Your task to perform on an android device: Open ESPN.com Image 0: 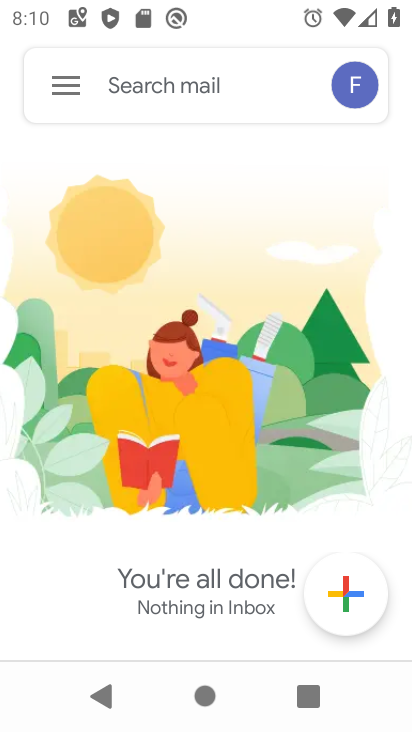
Step 0: drag from (208, 568) to (250, 174)
Your task to perform on an android device: Open ESPN.com Image 1: 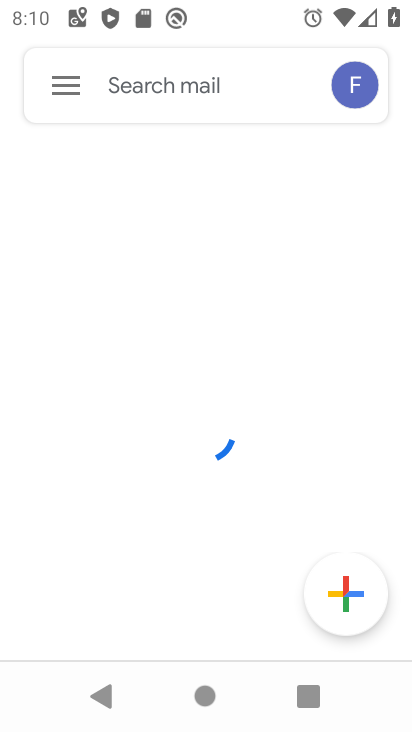
Step 1: press back button
Your task to perform on an android device: Open ESPN.com Image 2: 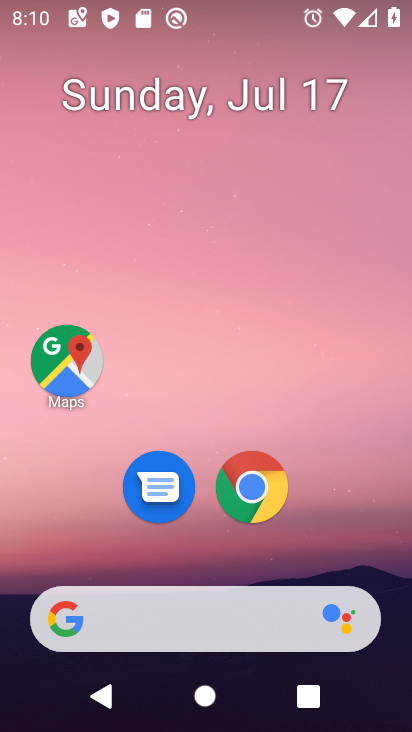
Step 2: click (266, 483)
Your task to perform on an android device: Open ESPN.com Image 3: 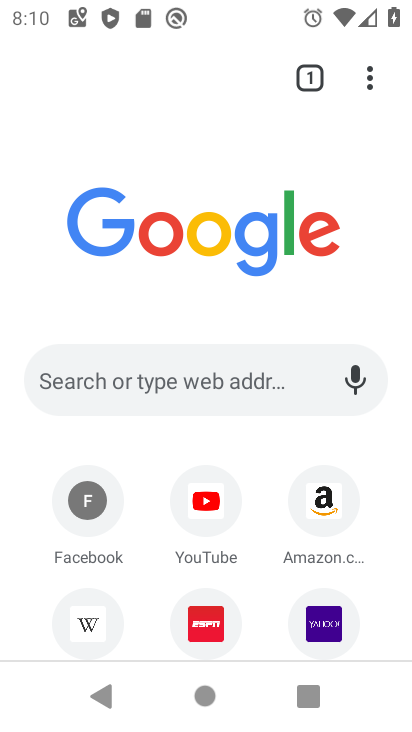
Step 3: click (206, 625)
Your task to perform on an android device: Open ESPN.com Image 4: 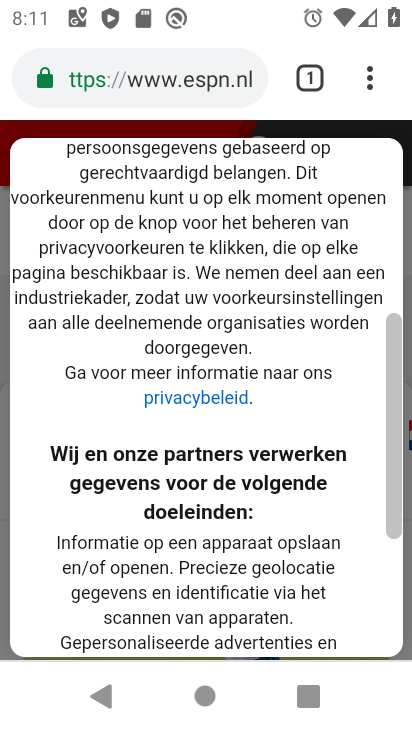
Step 4: task complete